Your task to perform on an android device: visit the assistant section in the google photos Image 0: 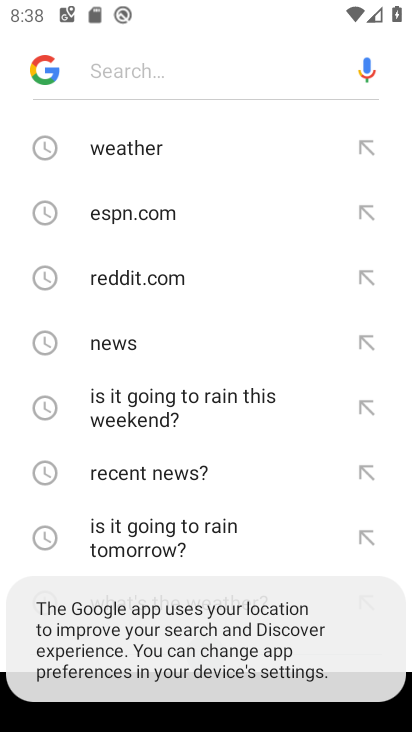
Step 0: press back button
Your task to perform on an android device: visit the assistant section in the google photos Image 1: 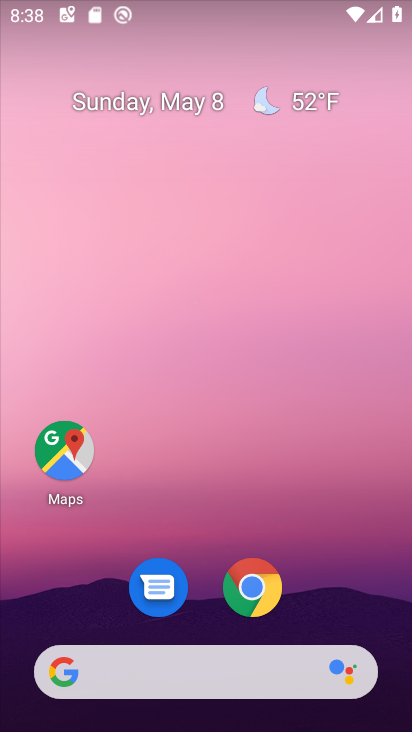
Step 1: drag from (347, 593) to (289, 119)
Your task to perform on an android device: visit the assistant section in the google photos Image 2: 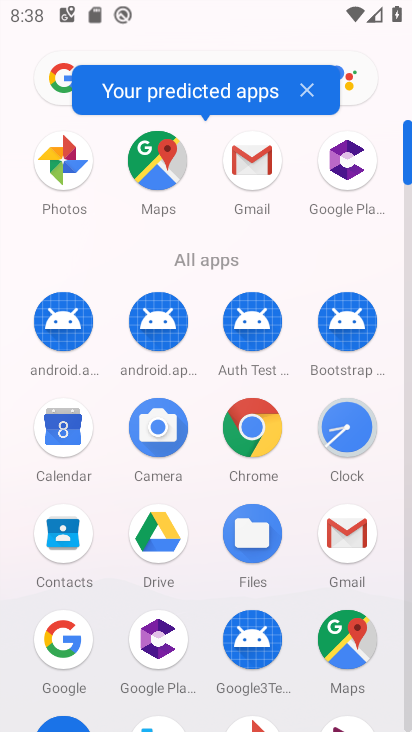
Step 2: click (78, 159)
Your task to perform on an android device: visit the assistant section in the google photos Image 3: 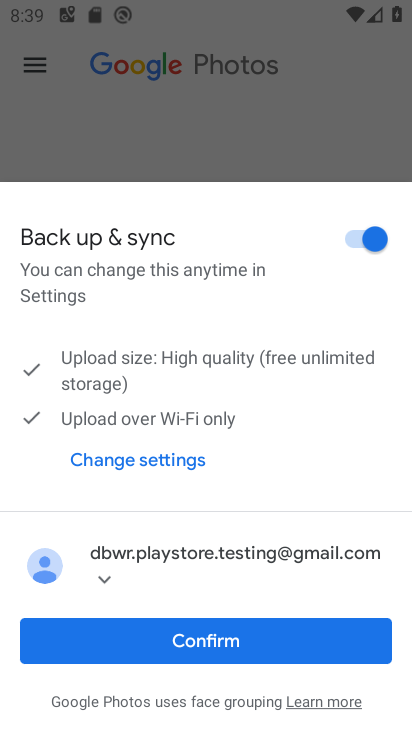
Step 3: click (197, 638)
Your task to perform on an android device: visit the assistant section in the google photos Image 4: 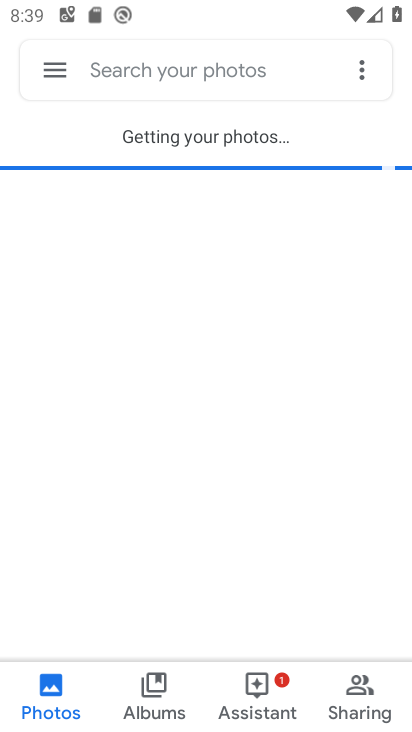
Step 4: click (263, 680)
Your task to perform on an android device: visit the assistant section in the google photos Image 5: 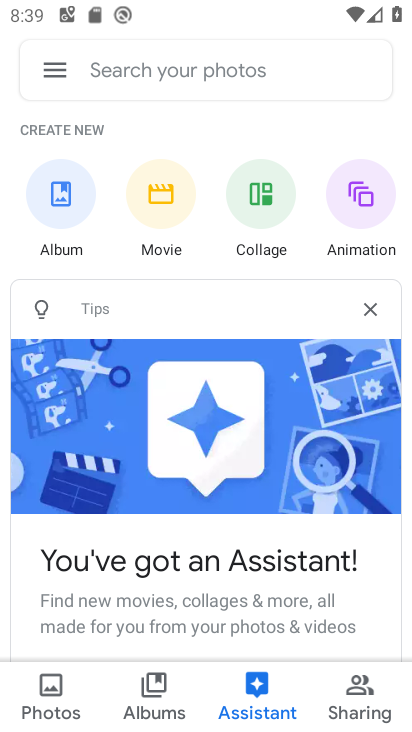
Step 5: task complete